Your task to perform on an android device: Open Google Chrome Image 0: 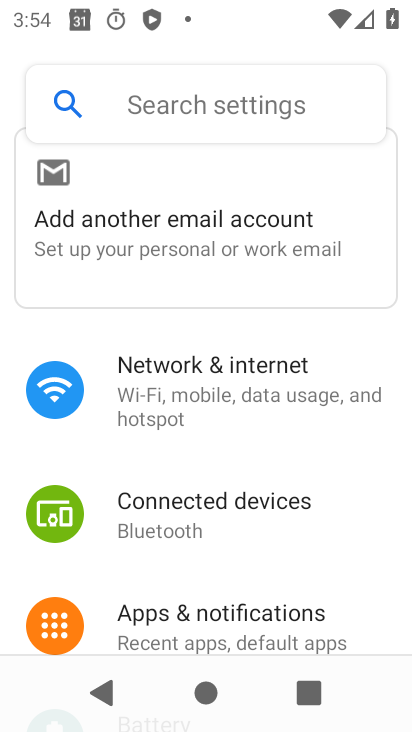
Step 0: press home button
Your task to perform on an android device: Open Google Chrome Image 1: 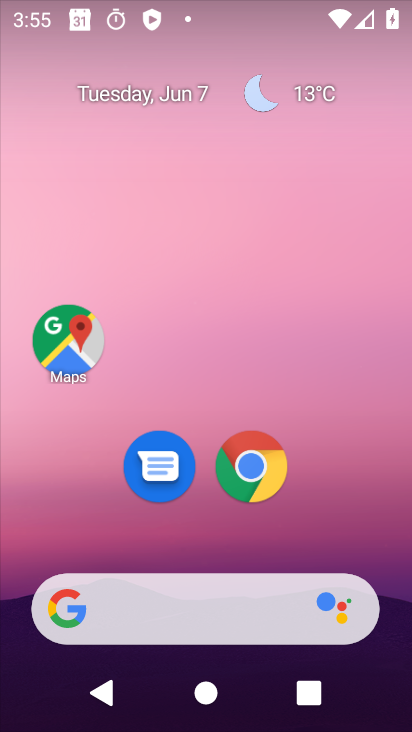
Step 1: click (264, 470)
Your task to perform on an android device: Open Google Chrome Image 2: 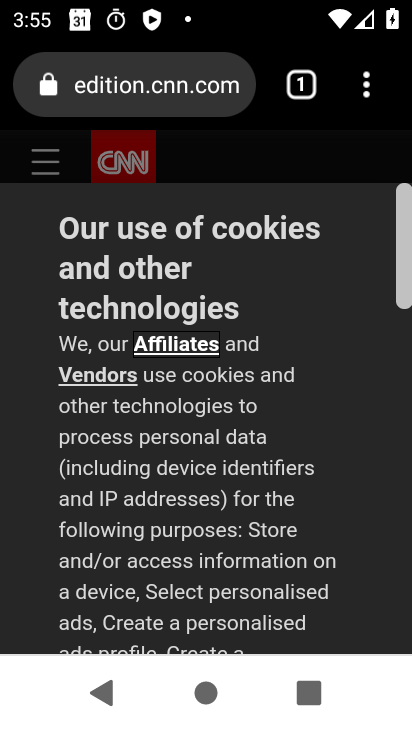
Step 2: task complete